Your task to perform on an android device: snooze an email in the gmail app Image 0: 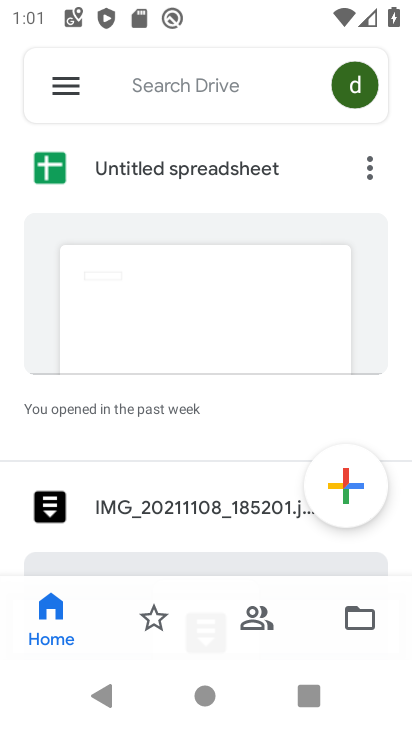
Step 0: press home button
Your task to perform on an android device: snooze an email in the gmail app Image 1: 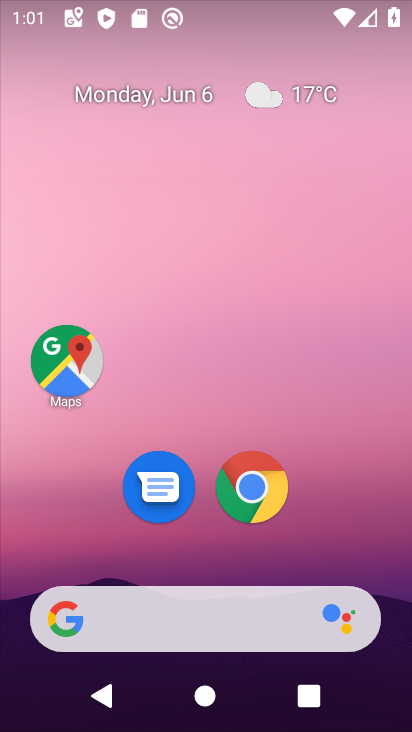
Step 1: drag from (86, 561) to (223, 44)
Your task to perform on an android device: snooze an email in the gmail app Image 2: 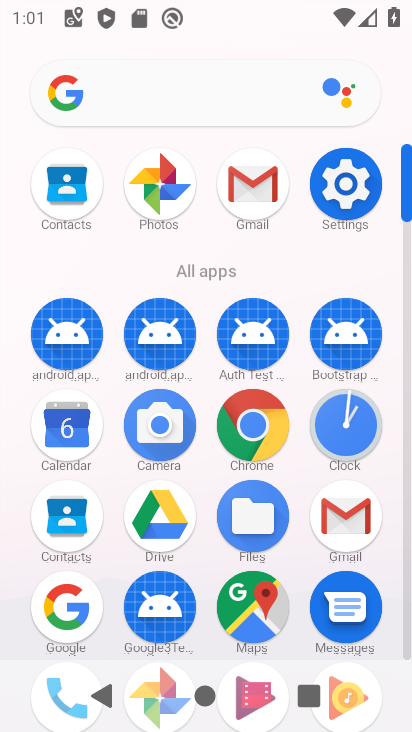
Step 2: click (337, 538)
Your task to perform on an android device: snooze an email in the gmail app Image 3: 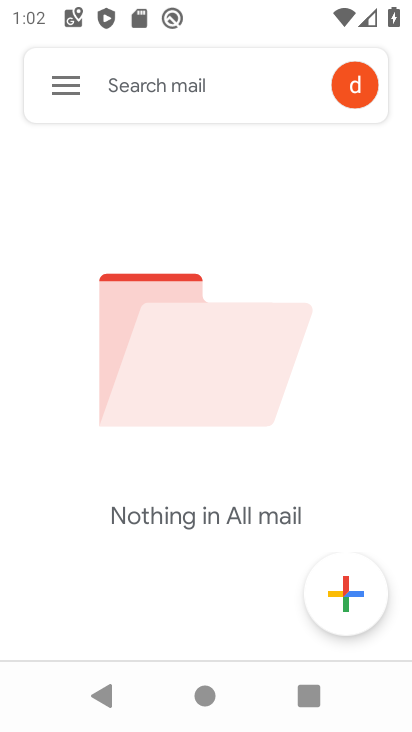
Step 3: task complete